Your task to perform on an android device: turn off improve location accuracy Image 0: 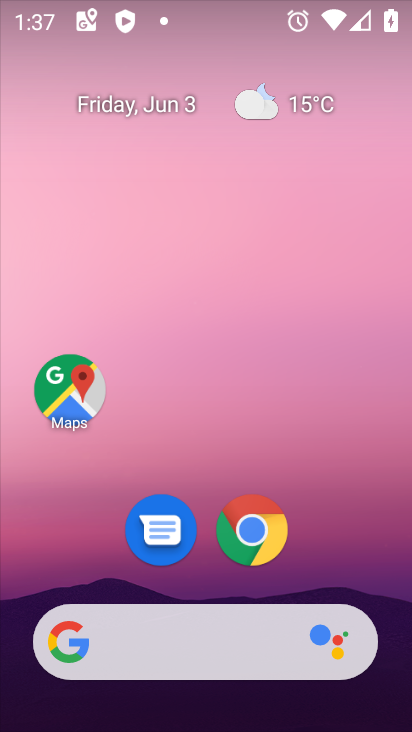
Step 0: drag from (363, 548) to (379, 89)
Your task to perform on an android device: turn off improve location accuracy Image 1: 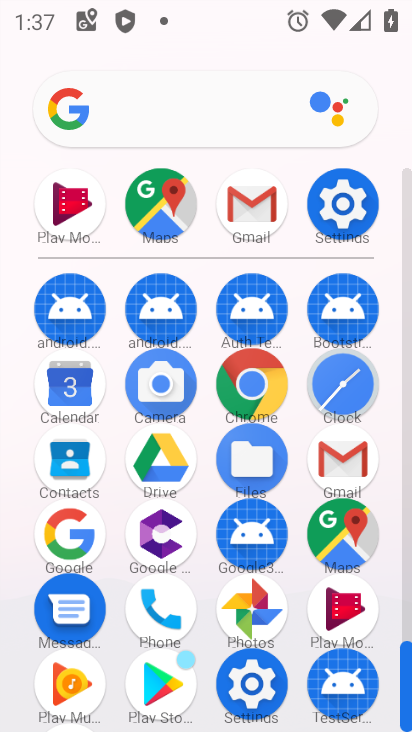
Step 1: click (351, 196)
Your task to perform on an android device: turn off improve location accuracy Image 2: 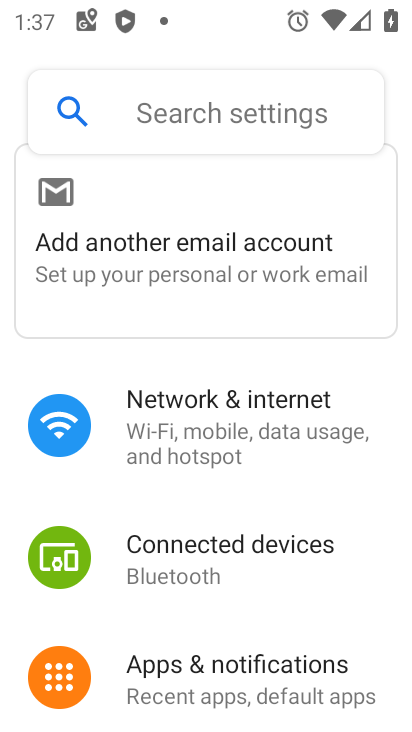
Step 2: drag from (391, 657) to (338, 115)
Your task to perform on an android device: turn off improve location accuracy Image 3: 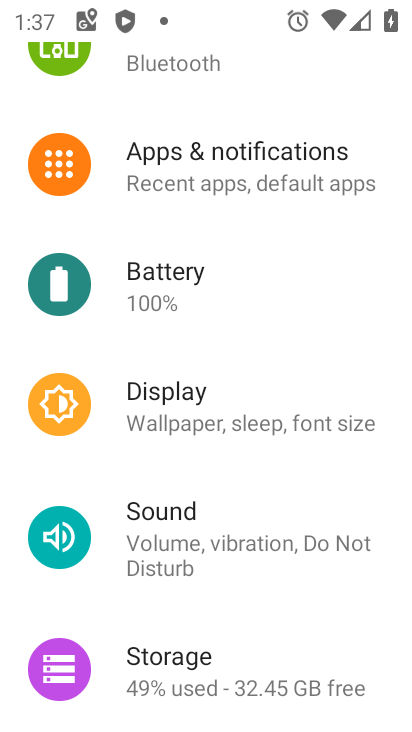
Step 3: drag from (390, 718) to (358, 228)
Your task to perform on an android device: turn off improve location accuracy Image 4: 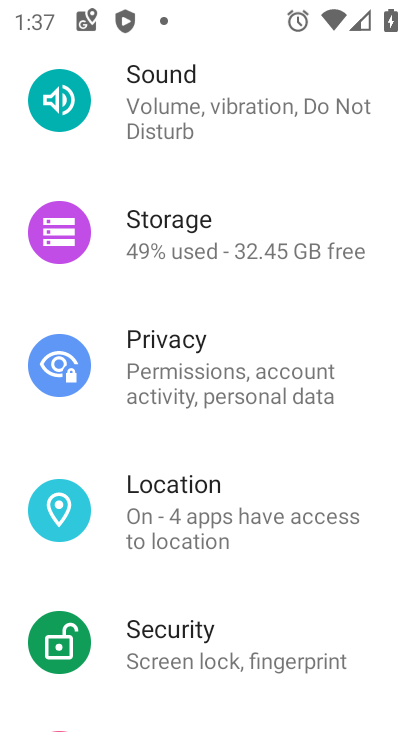
Step 4: click (190, 516)
Your task to perform on an android device: turn off improve location accuracy Image 5: 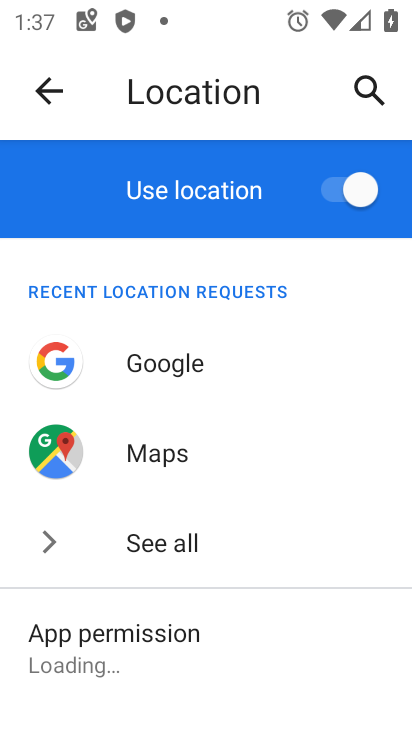
Step 5: drag from (332, 618) to (319, 95)
Your task to perform on an android device: turn off improve location accuracy Image 6: 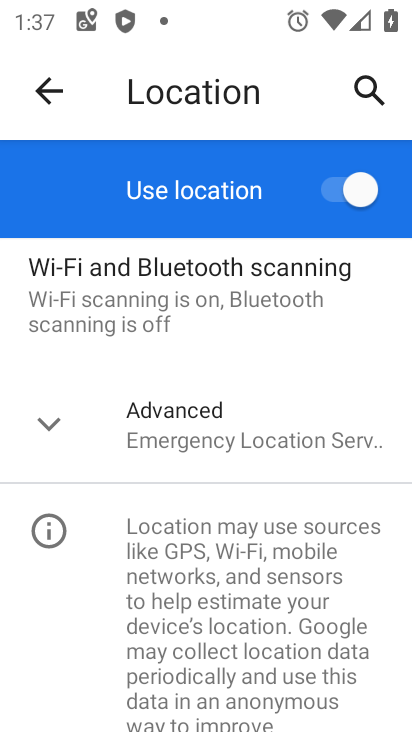
Step 6: click (46, 419)
Your task to perform on an android device: turn off improve location accuracy Image 7: 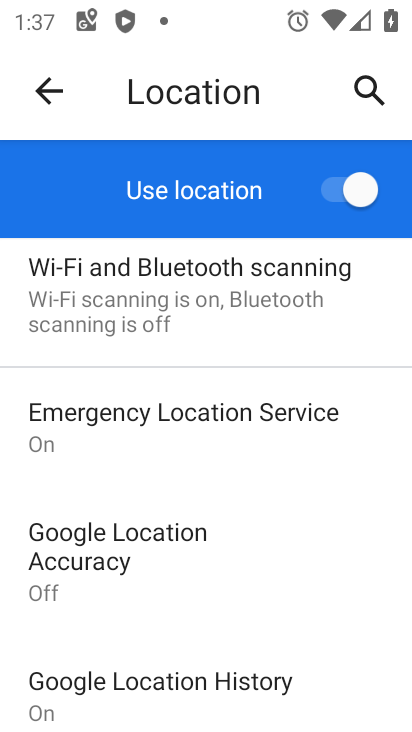
Step 7: click (333, 538)
Your task to perform on an android device: turn off improve location accuracy Image 8: 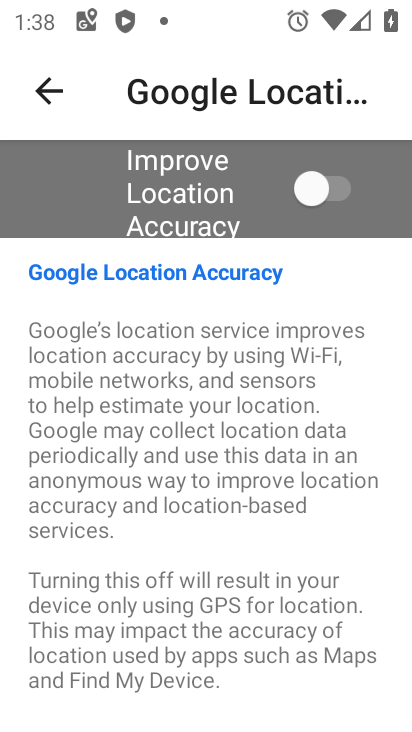
Step 8: task complete